Your task to perform on an android device: delete location history Image 0: 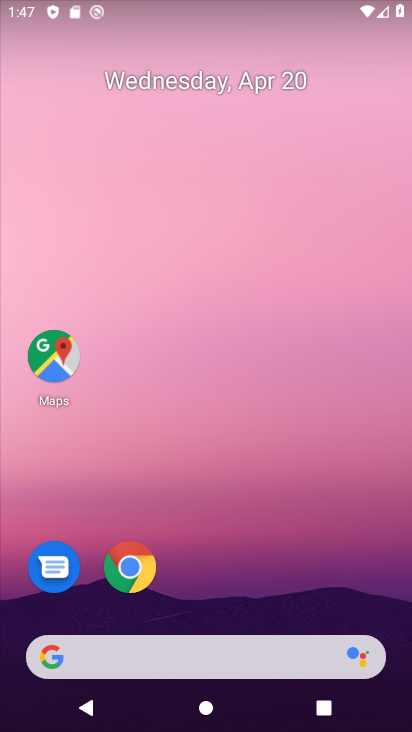
Step 0: drag from (157, 656) to (216, 248)
Your task to perform on an android device: delete location history Image 1: 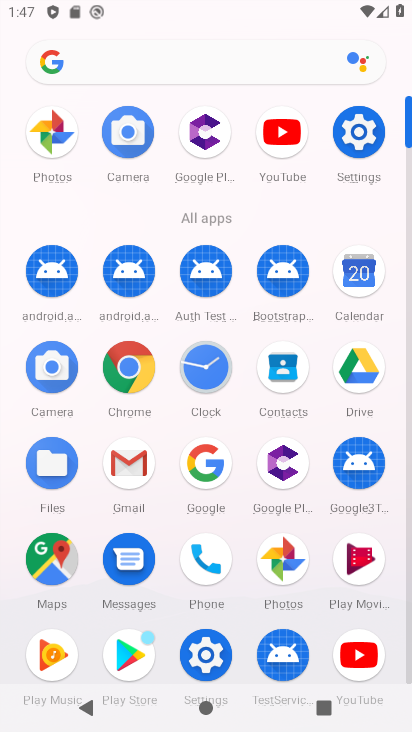
Step 1: click (55, 564)
Your task to perform on an android device: delete location history Image 2: 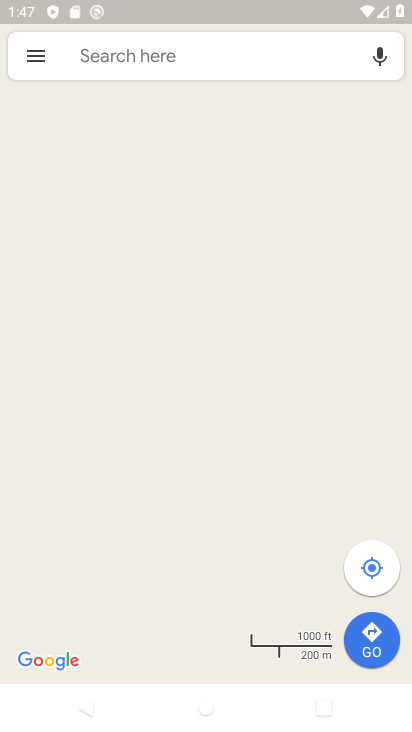
Step 2: click (44, 57)
Your task to perform on an android device: delete location history Image 3: 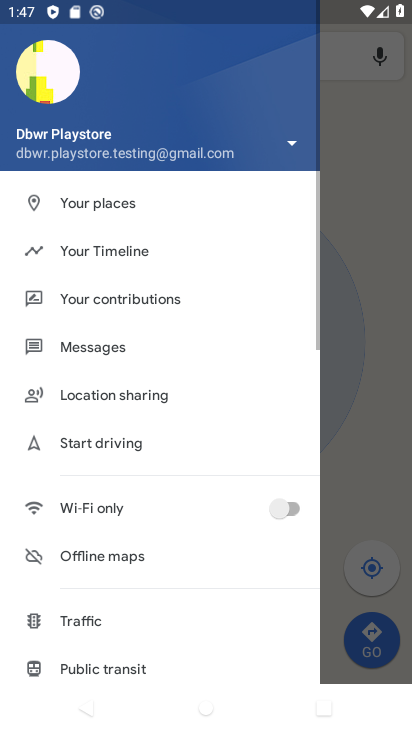
Step 3: click (62, 256)
Your task to perform on an android device: delete location history Image 4: 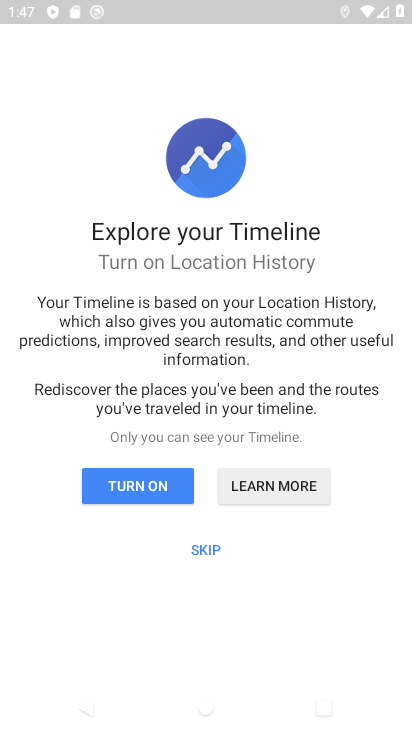
Step 4: click (164, 494)
Your task to perform on an android device: delete location history Image 5: 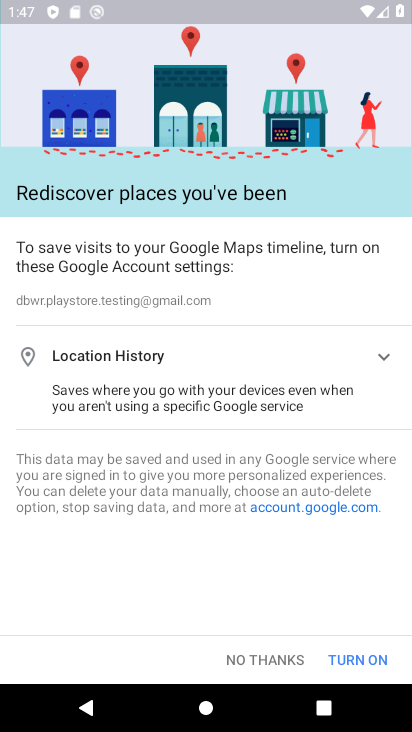
Step 5: click (382, 665)
Your task to perform on an android device: delete location history Image 6: 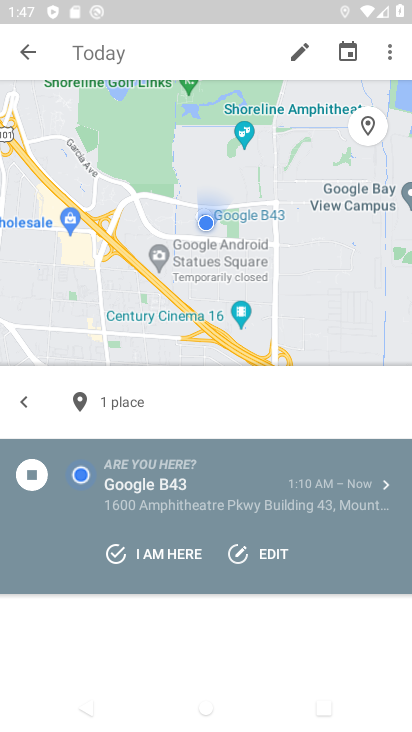
Step 6: click (384, 61)
Your task to perform on an android device: delete location history Image 7: 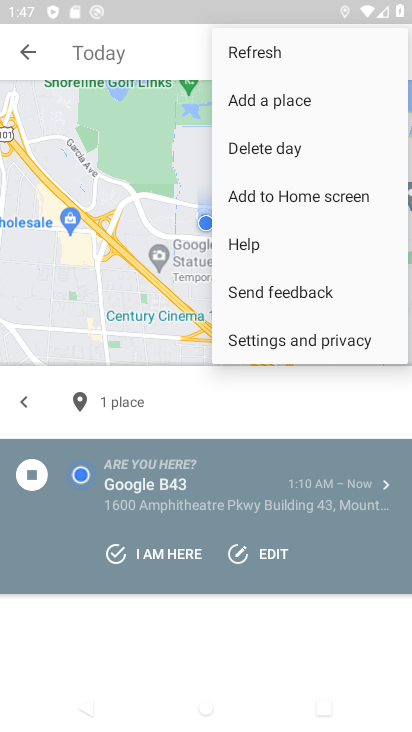
Step 7: click (307, 336)
Your task to perform on an android device: delete location history Image 8: 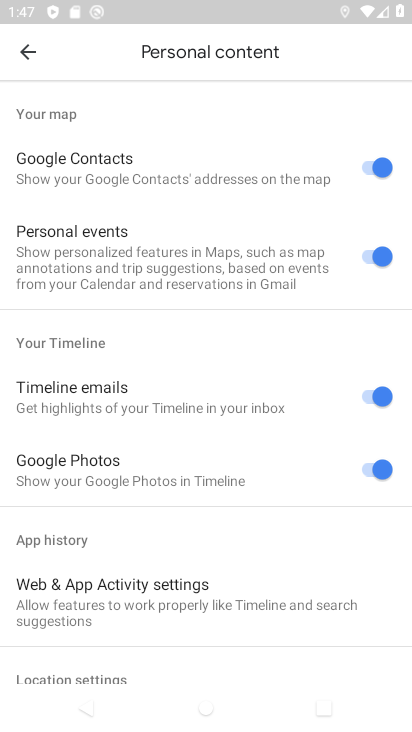
Step 8: drag from (245, 600) to (207, 199)
Your task to perform on an android device: delete location history Image 9: 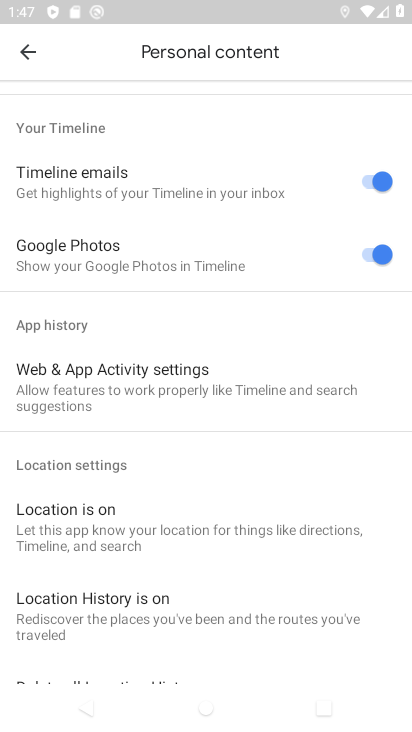
Step 9: drag from (230, 617) to (224, 317)
Your task to perform on an android device: delete location history Image 10: 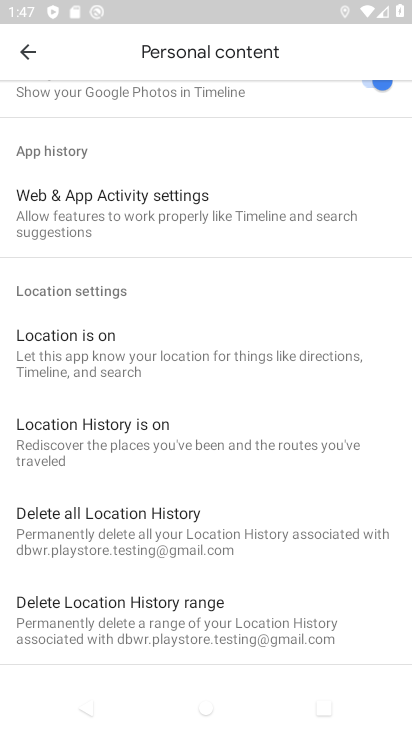
Step 10: click (187, 549)
Your task to perform on an android device: delete location history Image 11: 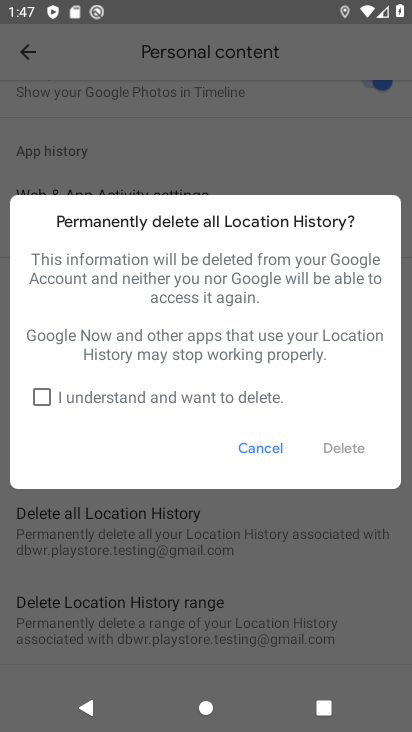
Step 11: click (276, 394)
Your task to perform on an android device: delete location history Image 12: 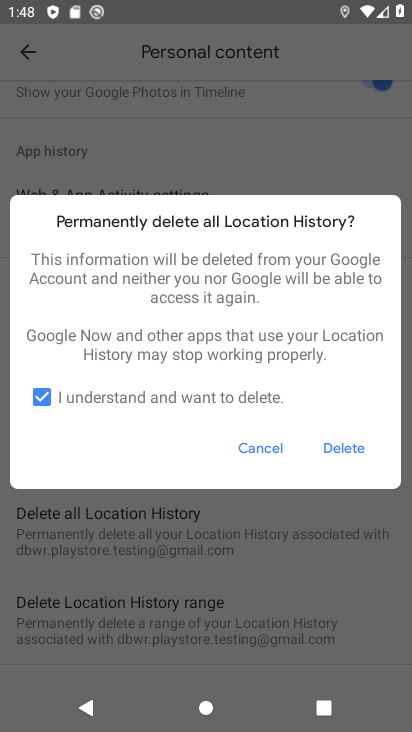
Step 12: click (352, 446)
Your task to perform on an android device: delete location history Image 13: 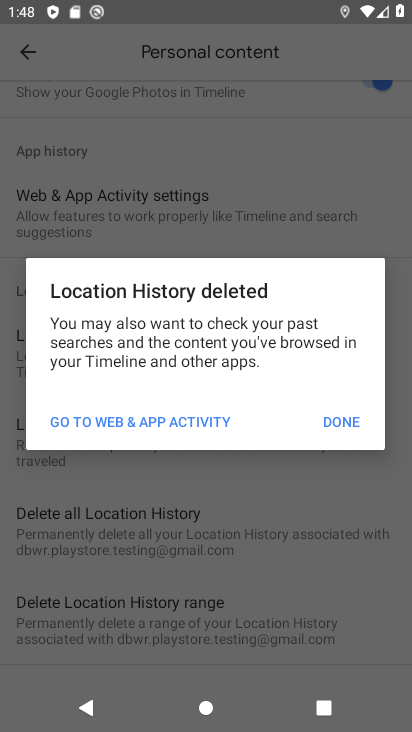
Step 13: click (331, 422)
Your task to perform on an android device: delete location history Image 14: 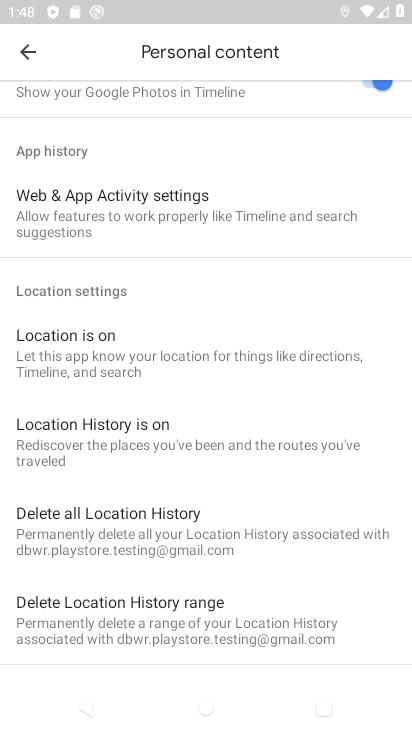
Step 14: task complete